Your task to perform on an android device: Go to Android settings Image 0: 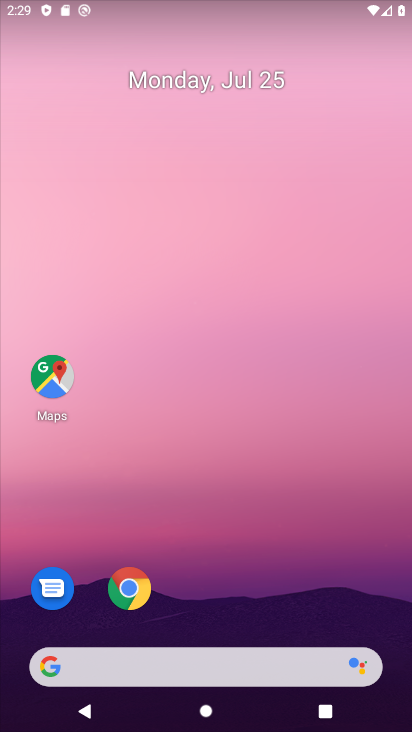
Step 0: drag from (217, 719) to (194, 283)
Your task to perform on an android device: Go to Android settings Image 1: 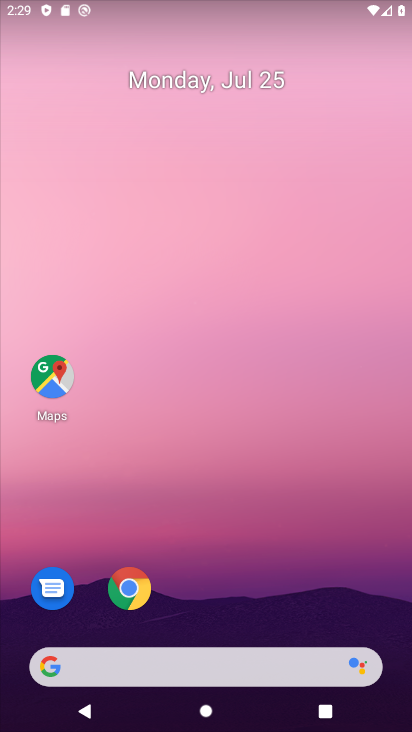
Step 1: drag from (232, 631) to (229, 158)
Your task to perform on an android device: Go to Android settings Image 2: 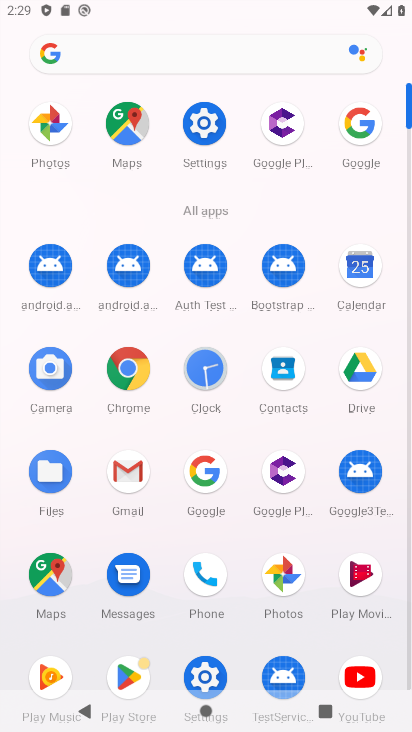
Step 2: click (205, 125)
Your task to perform on an android device: Go to Android settings Image 3: 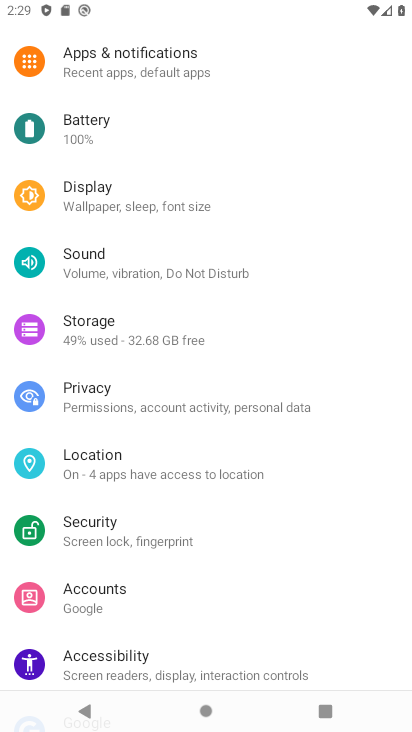
Step 3: task complete